Your task to perform on an android device: change the clock style Image 0: 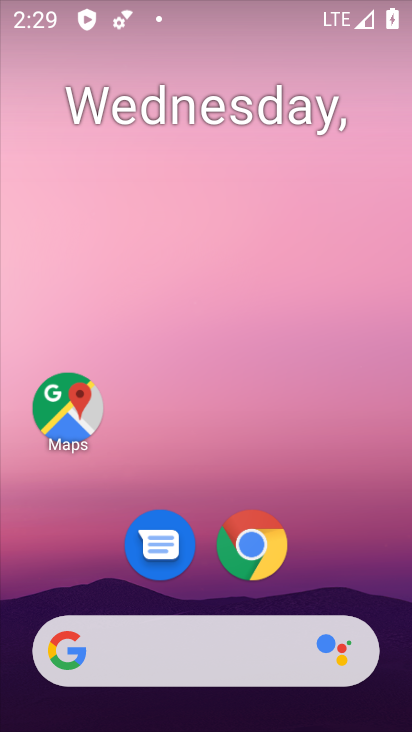
Step 0: drag from (209, 590) to (209, 215)
Your task to perform on an android device: change the clock style Image 1: 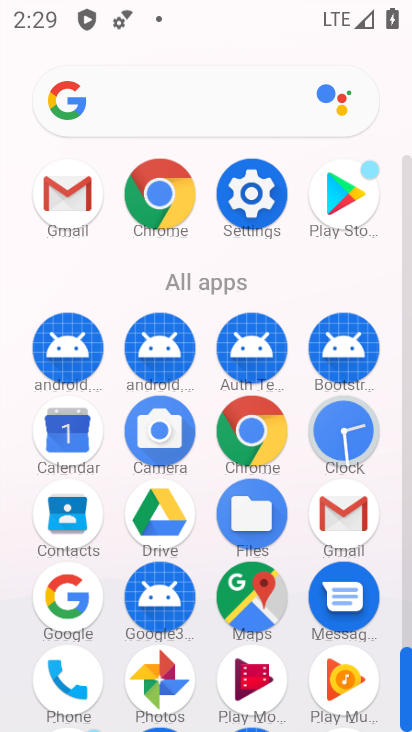
Step 1: click (338, 438)
Your task to perform on an android device: change the clock style Image 2: 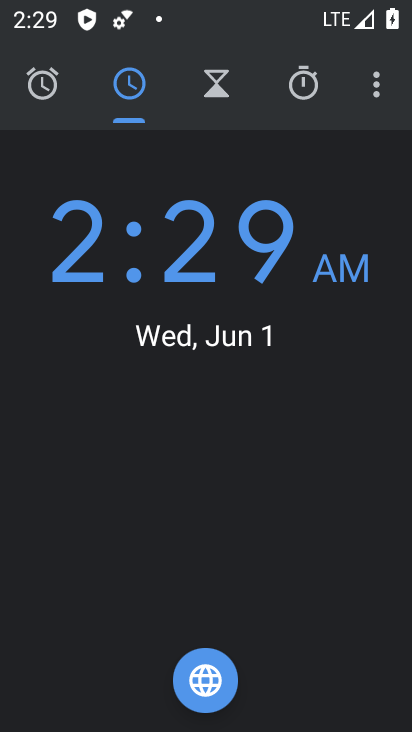
Step 2: click (377, 83)
Your task to perform on an android device: change the clock style Image 3: 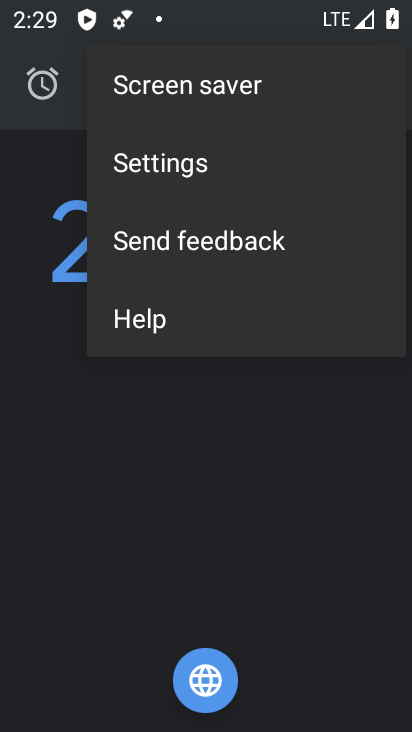
Step 3: click (219, 161)
Your task to perform on an android device: change the clock style Image 4: 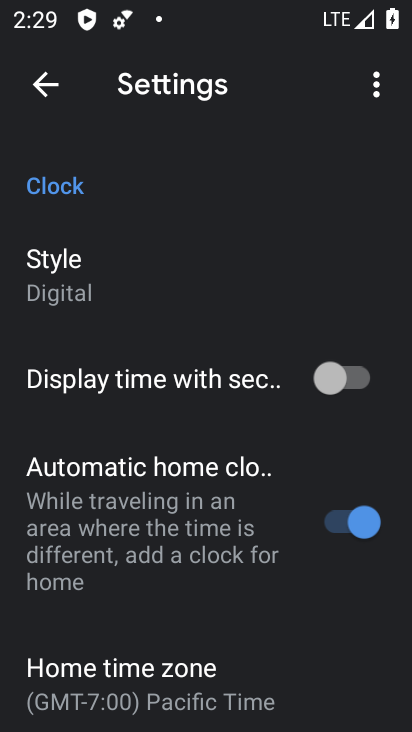
Step 4: click (73, 276)
Your task to perform on an android device: change the clock style Image 5: 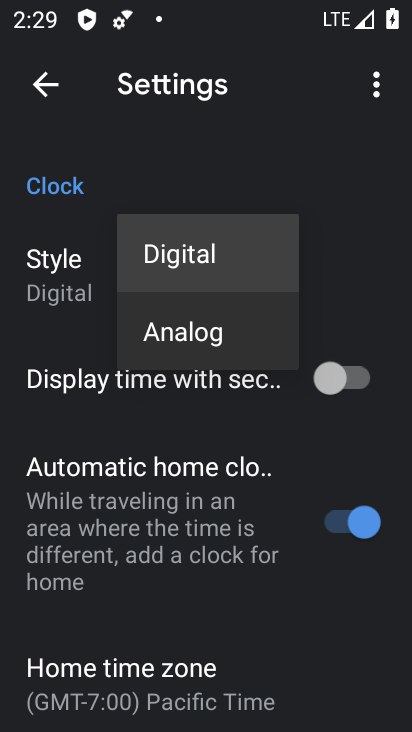
Step 5: click (193, 332)
Your task to perform on an android device: change the clock style Image 6: 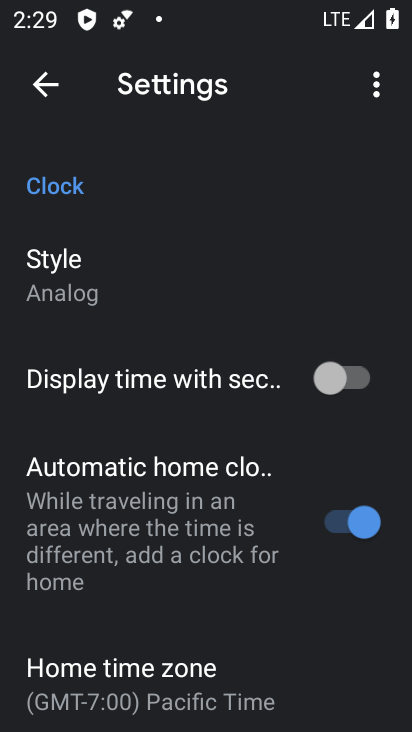
Step 6: task complete